Your task to perform on an android device: toggle data saver in the chrome app Image 0: 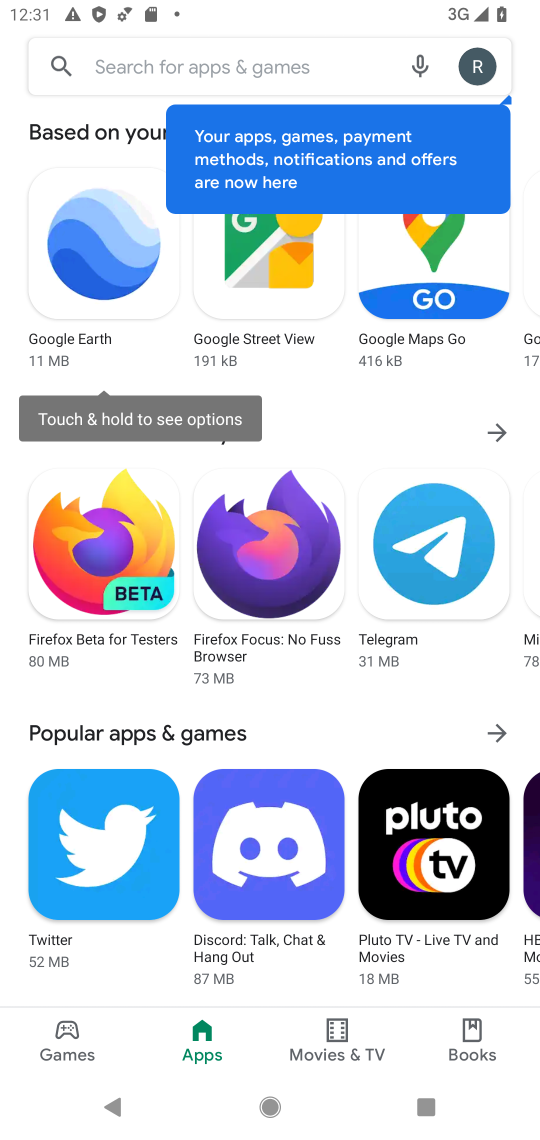
Step 0: press home button
Your task to perform on an android device: toggle data saver in the chrome app Image 1: 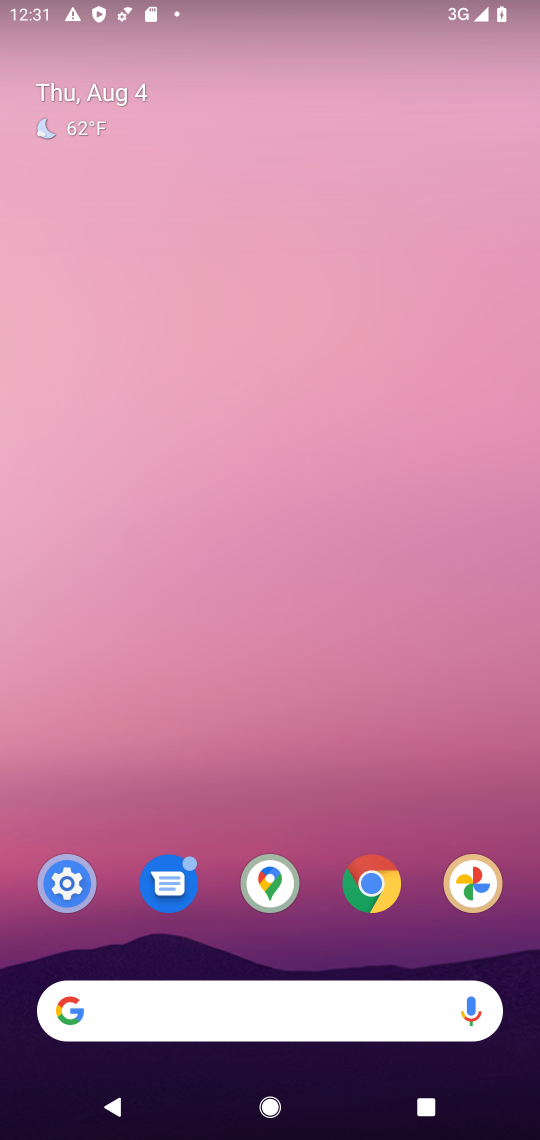
Step 1: drag from (258, 955) to (302, 582)
Your task to perform on an android device: toggle data saver in the chrome app Image 2: 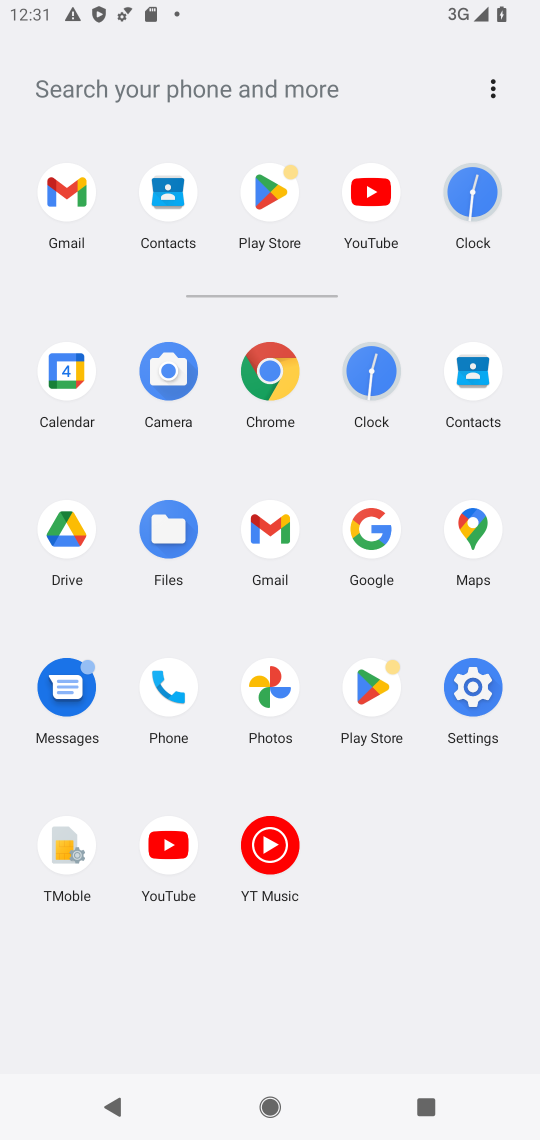
Step 2: click (282, 367)
Your task to perform on an android device: toggle data saver in the chrome app Image 3: 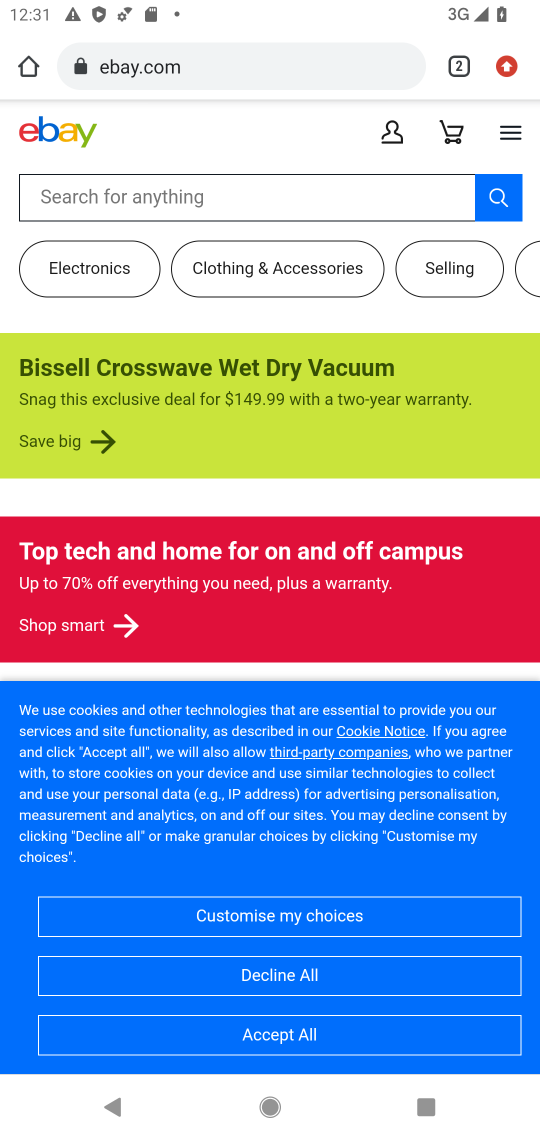
Step 3: drag from (249, 175) to (18, 1095)
Your task to perform on an android device: toggle data saver in the chrome app Image 4: 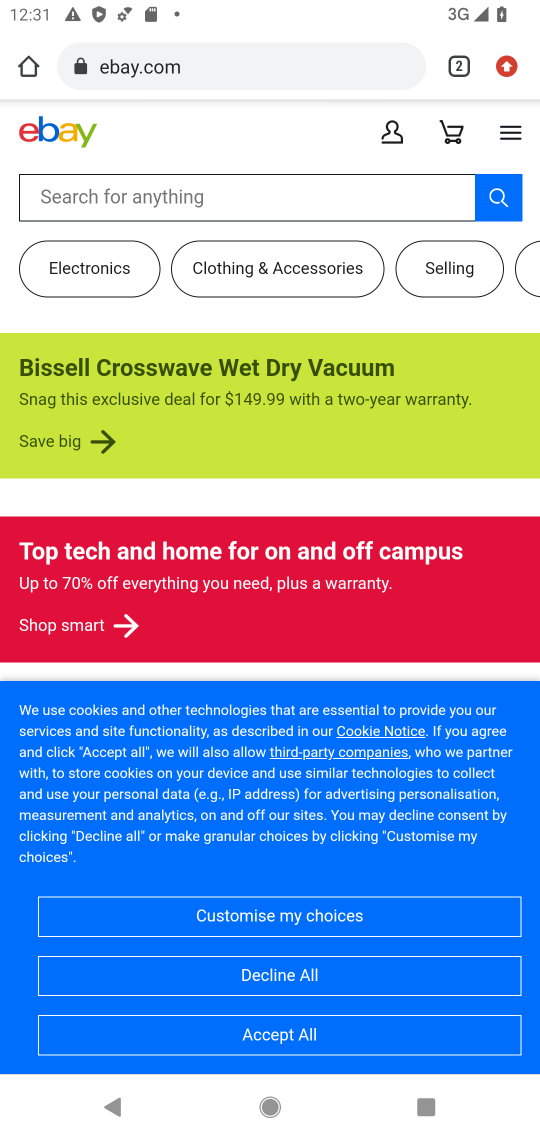
Step 4: drag from (511, 70) to (308, 872)
Your task to perform on an android device: toggle data saver in the chrome app Image 5: 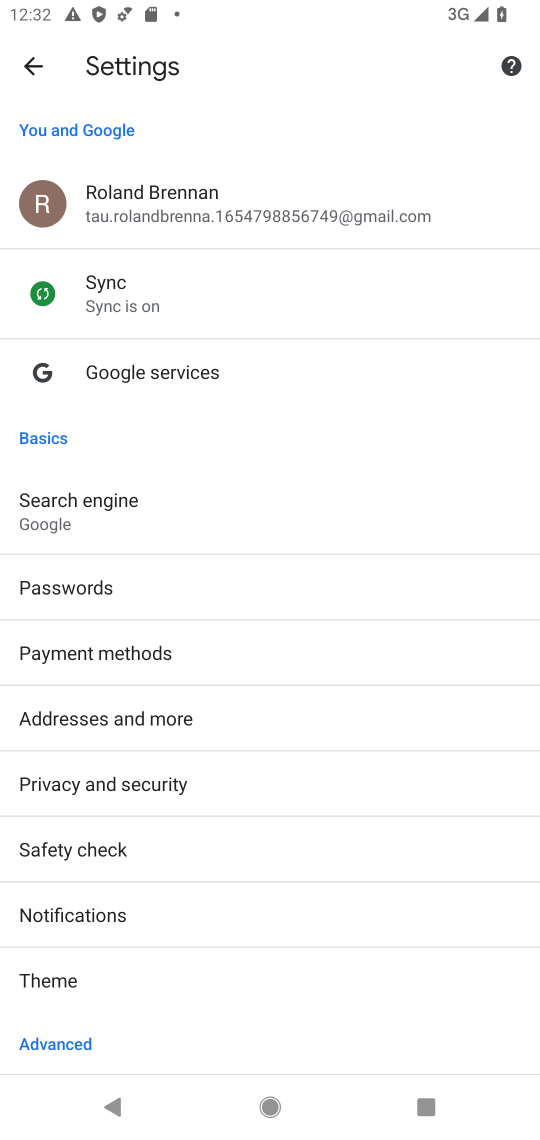
Step 5: drag from (164, 853) to (289, 196)
Your task to perform on an android device: toggle data saver in the chrome app Image 6: 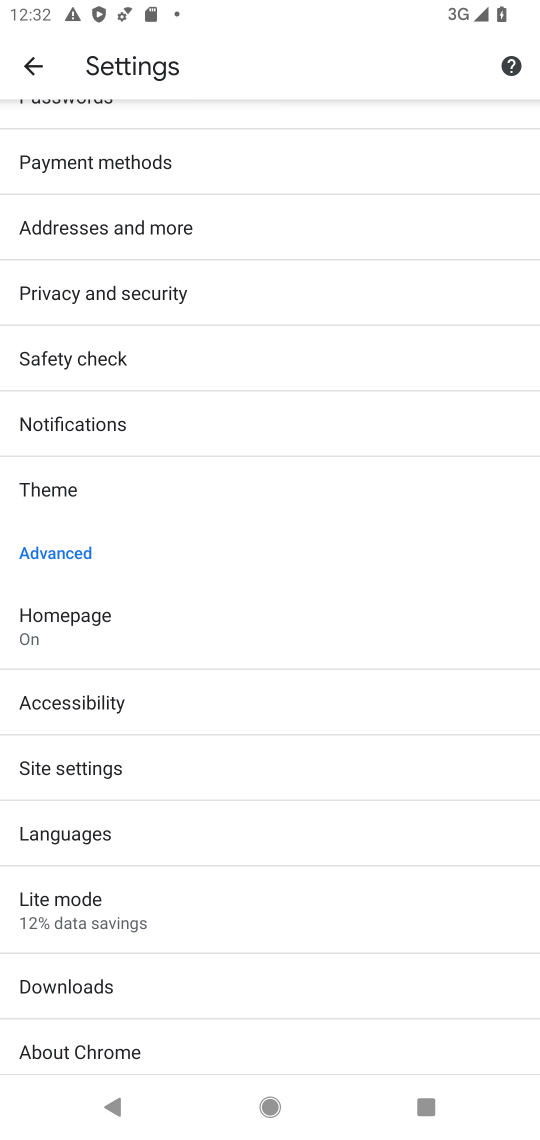
Step 6: click (111, 910)
Your task to perform on an android device: toggle data saver in the chrome app Image 7: 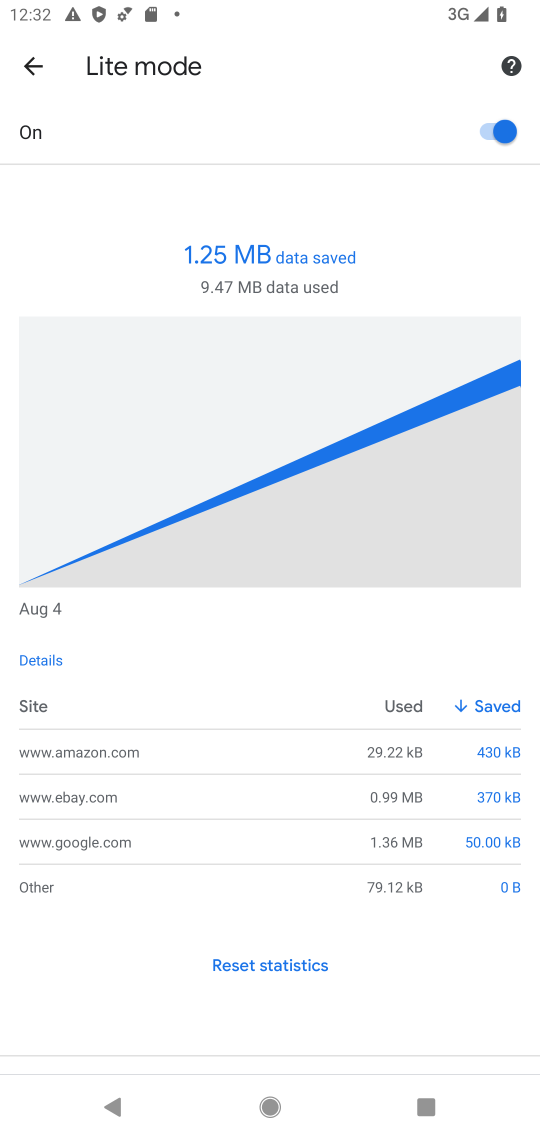
Step 7: click (487, 131)
Your task to perform on an android device: toggle data saver in the chrome app Image 8: 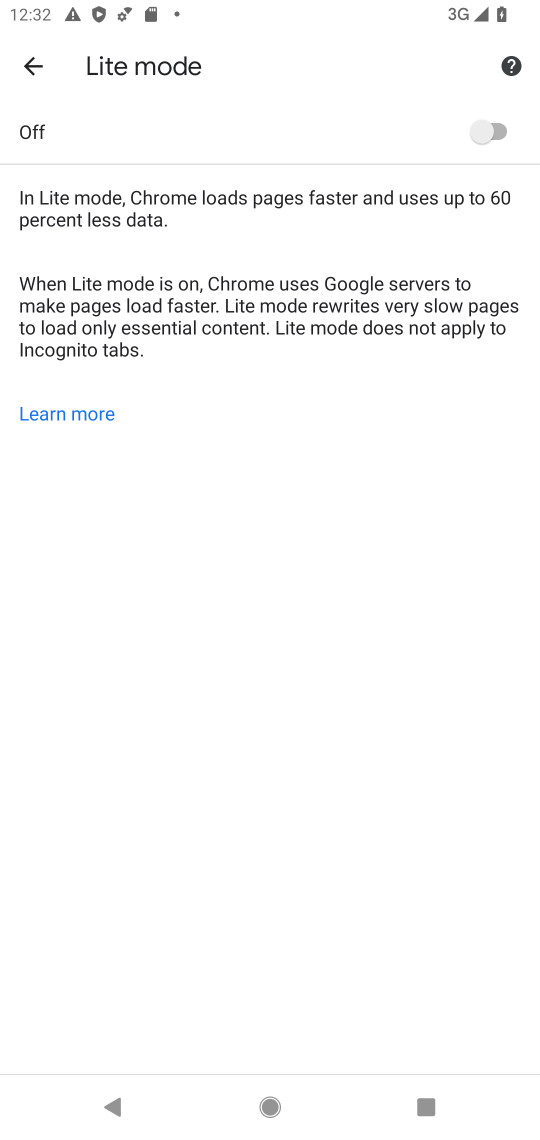
Step 8: task complete